Your task to perform on an android device: Open CNN.com Image 0: 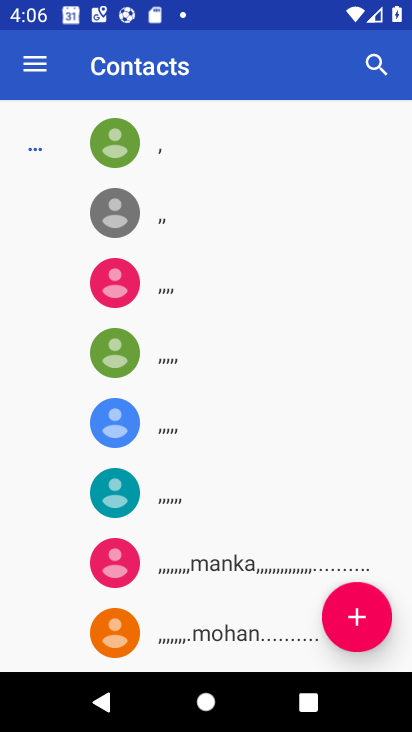
Step 0: press home button
Your task to perform on an android device: Open CNN.com Image 1: 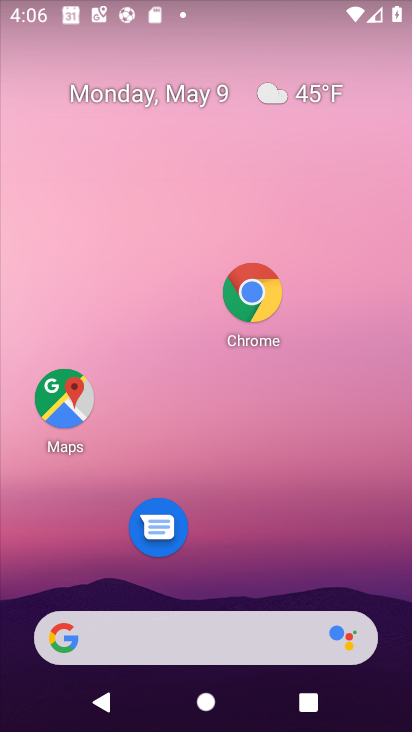
Step 1: drag from (308, 583) to (338, 160)
Your task to perform on an android device: Open CNN.com Image 2: 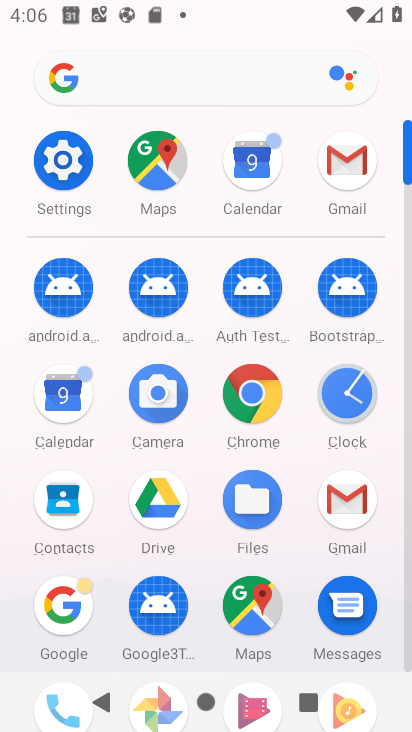
Step 2: click (260, 413)
Your task to perform on an android device: Open CNN.com Image 3: 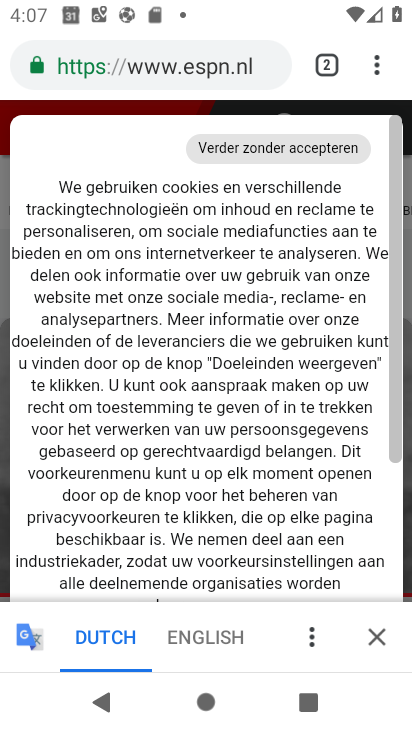
Step 3: click (198, 84)
Your task to perform on an android device: Open CNN.com Image 4: 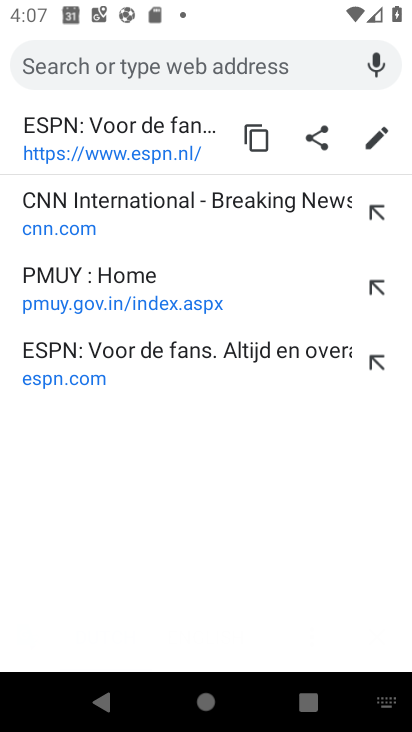
Step 4: click (210, 215)
Your task to perform on an android device: Open CNN.com Image 5: 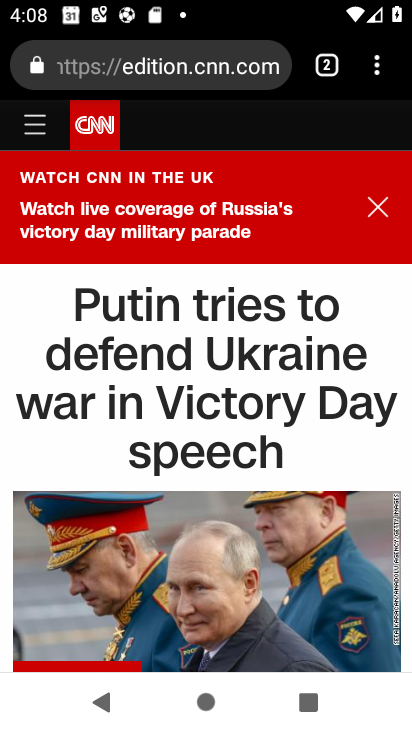
Step 5: task complete